Your task to perform on an android device: stop showing notifications on the lock screen Image 0: 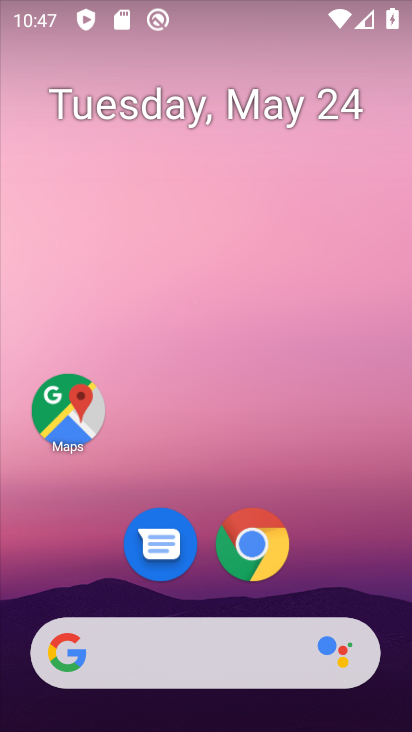
Step 0: drag from (236, 640) to (197, 192)
Your task to perform on an android device: stop showing notifications on the lock screen Image 1: 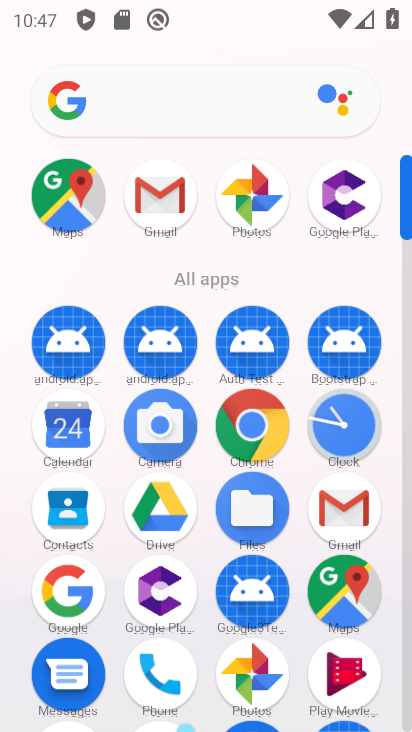
Step 1: drag from (217, 468) to (212, 150)
Your task to perform on an android device: stop showing notifications on the lock screen Image 2: 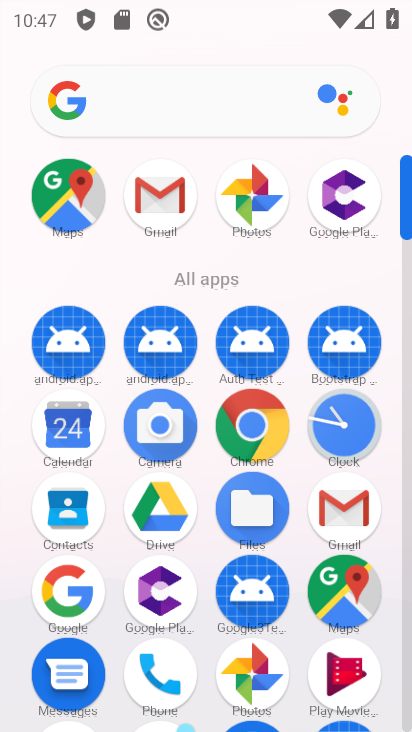
Step 2: drag from (216, 641) to (215, 105)
Your task to perform on an android device: stop showing notifications on the lock screen Image 3: 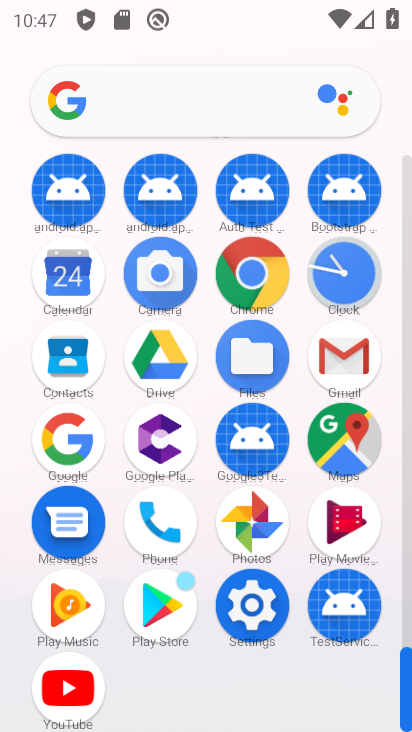
Step 3: click (259, 618)
Your task to perform on an android device: stop showing notifications on the lock screen Image 4: 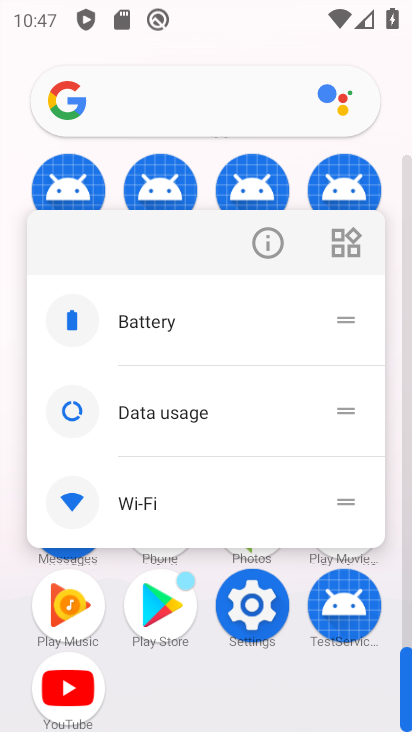
Step 4: click (237, 608)
Your task to perform on an android device: stop showing notifications on the lock screen Image 5: 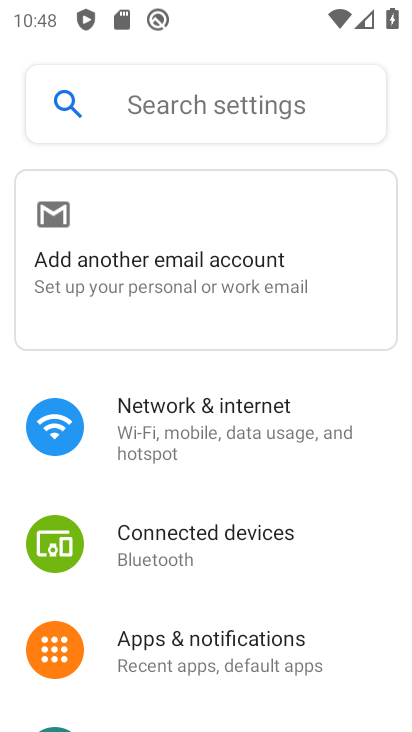
Step 5: drag from (170, 586) to (174, 375)
Your task to perform on an android device: stop showing notifications on the lock screen Image 6: 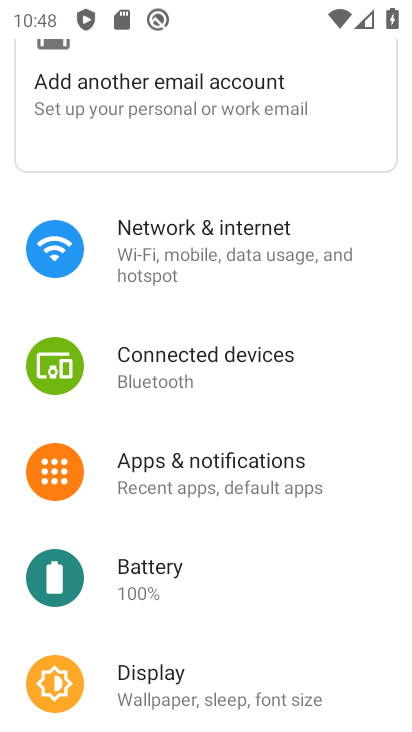
Step 6: click (177, 502)
Your task to perform on an android device: stop showing notifications on the lock screen Image 7: 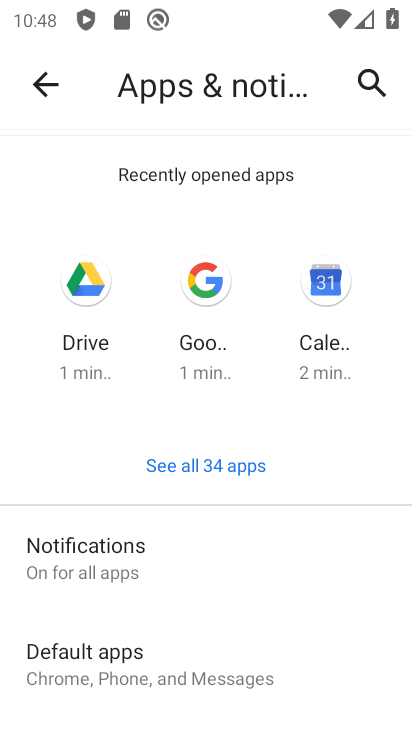
Step 7: click (135, 549)
Your task to perform on an android device: stop showing notifications on the lock screen Image 8: 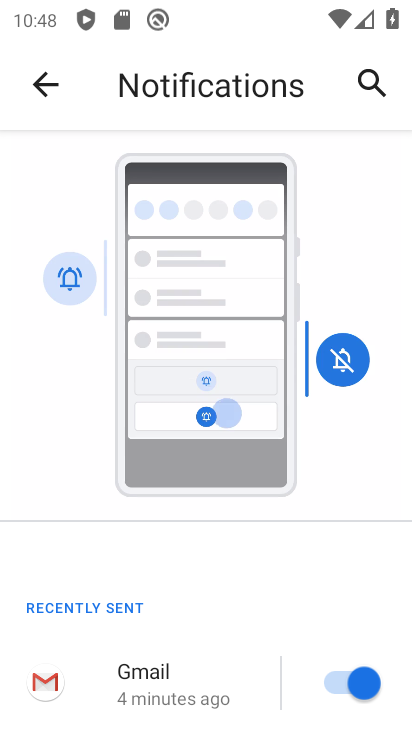
Step 8: drag from (205, 545) to (220, 82)
Your task to perform on an android device: stop showing notifications on the lock screen Image 9: 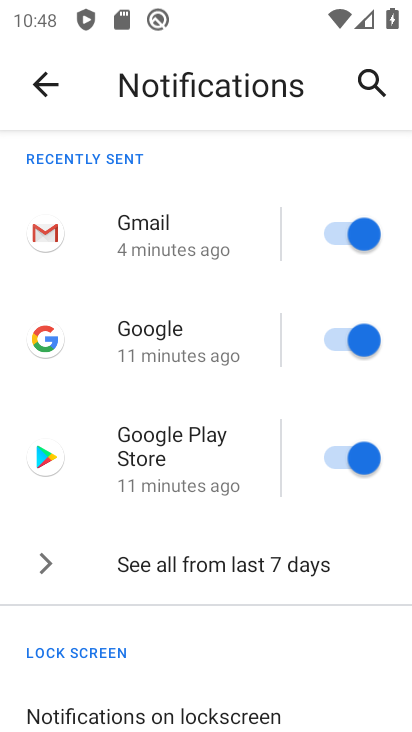
Step 9: drag from (237, 640) to (198, 272)
Your task to perform on an android device: stop showing notifications on the lock screen Image 10: 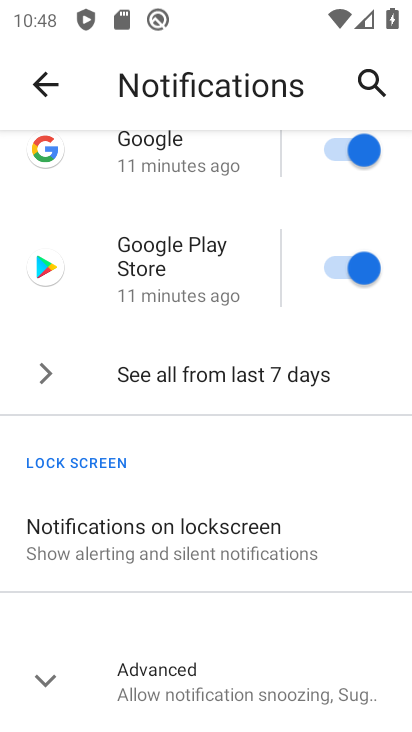
Step 10: click (175, 606)
Your task to perform on an android device: stop showing notifications on the lock screen Image 11: 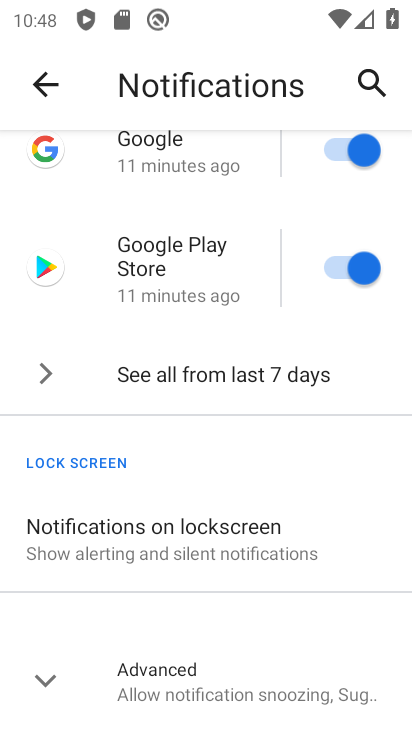
Step 11: click (160, 559)
Your task to perform on an android device: stop showing notifications on the lock screen Image 12: 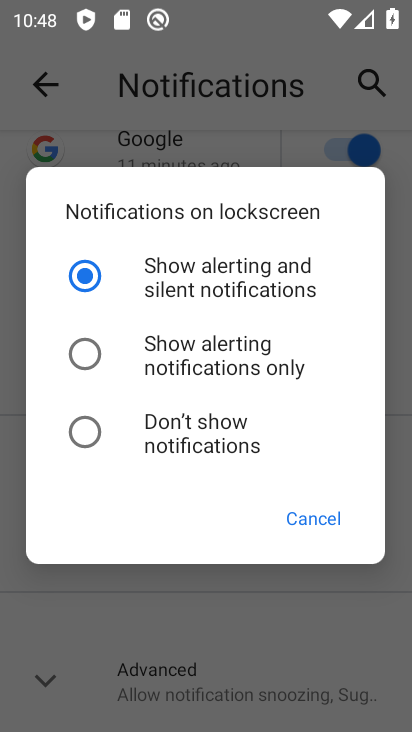
Step 12: click (151, 429)
Your task to perform on an android device: stop showing notifications on the lock screen Image 13: 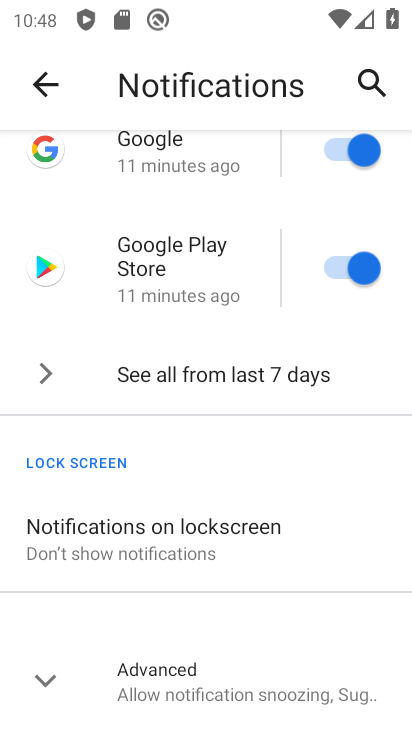
Step 13: click (191, 552)
Your task to perform on an android device: stop showing notifications on the lock screen Image 14: 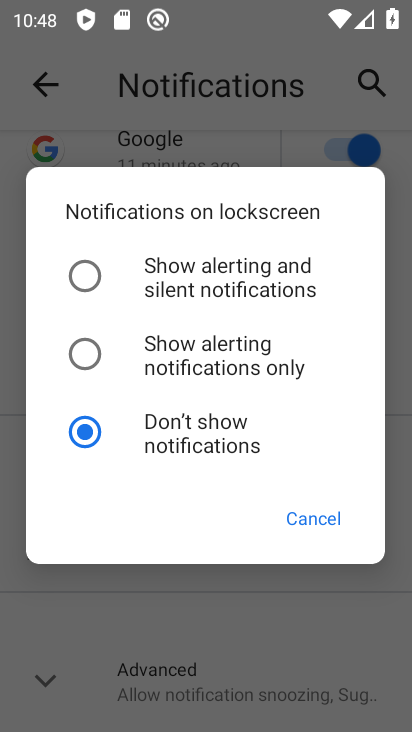
Step 14: click (170, 459)
Your task to perform on an android device: stop showing notifications on the lock screen Image 15: 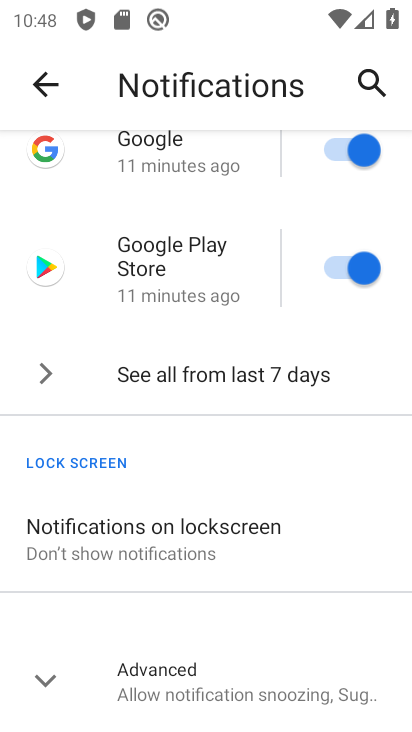
Step 15: task complete